Your task to perform on an android device: stop showing notifications on the lock screen Image 0: 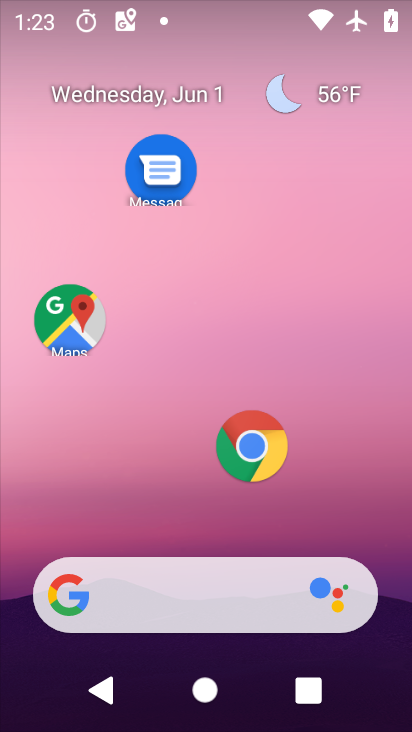
Step 0: drag from (169, 515) to (221, 145)
Your task to perform on an android device: stop showing notifications on the lock screen Image 1: 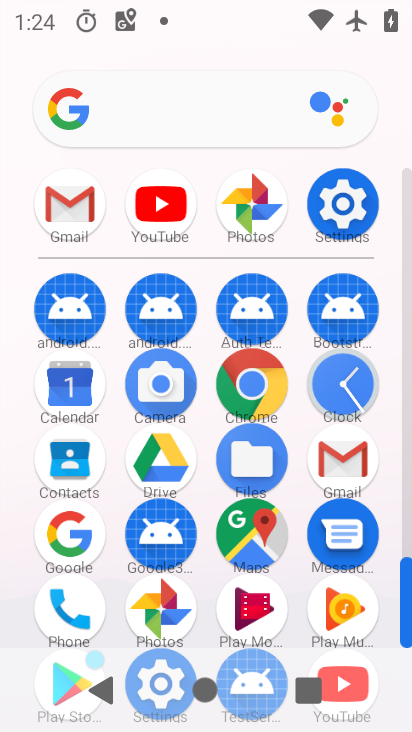
Step 1: click (307, 433)
Your task to perform on an android device: stop showing notifications on the lock screen Image 2: 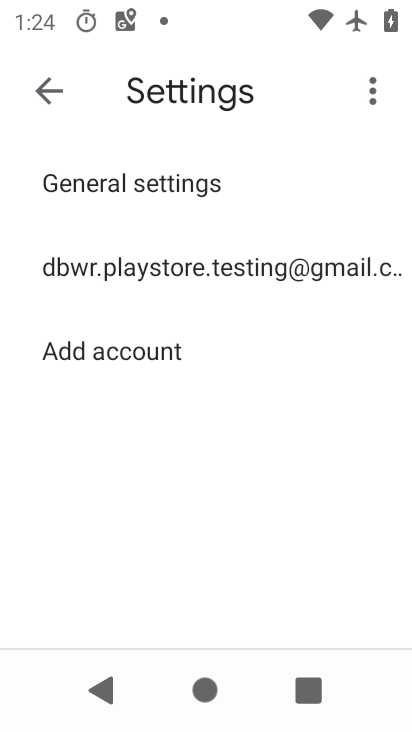
Step 2: drag from (200, 274) to (211, 153)
Your task to perform on an android device: stop showing notifications on the lock screen Image 3: 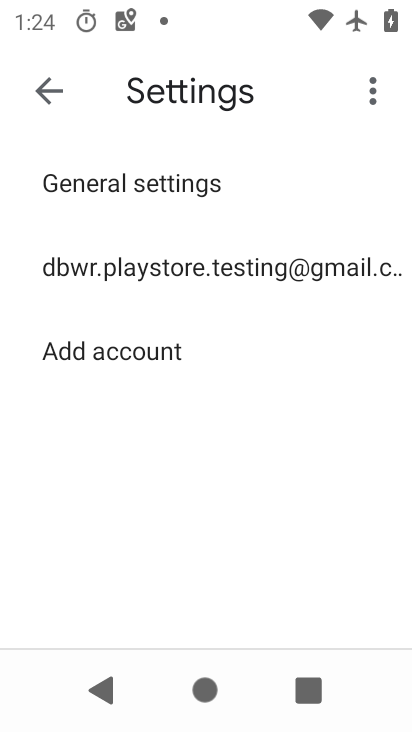
Step 3: press back button
Your task to perform on an android device: stop showing notifications on the lock screen Image 4: 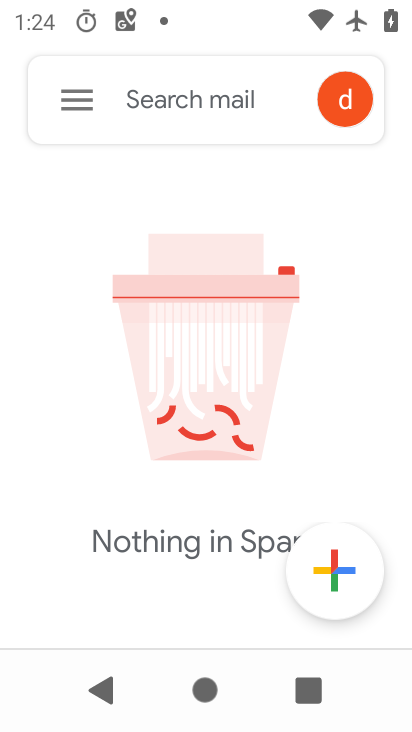
Step 4: press home button
Your task to perform on an android device: stop showing notifications on the lock screen Image 5: 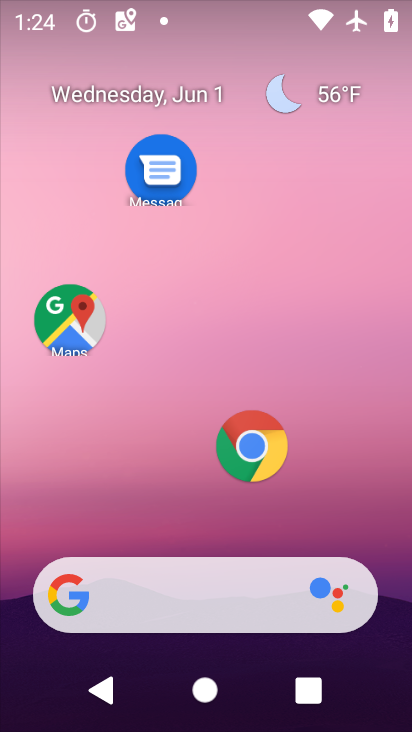
Step 5: drag from (239, 537) to (307, 120)
Your task to perform on an android device: stop showing notifications on the lock screen Image 6: 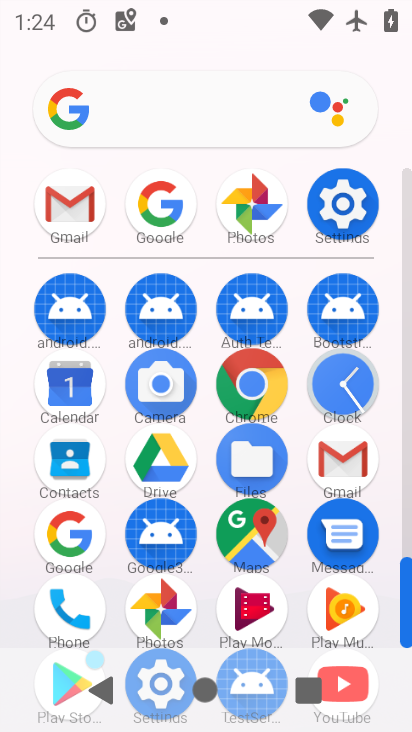
Step 6: drag from (191, 267) to (217, 120)
Your task to perform on an android device: stop showing notifications on the lock screen Image 7: 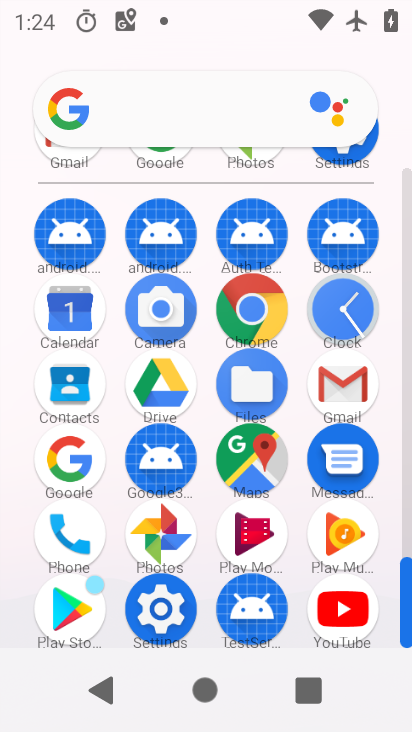
Step 7: click (160, 627)
Your task to perform on an android device: stop showing notifications on the lock screen Image 8: 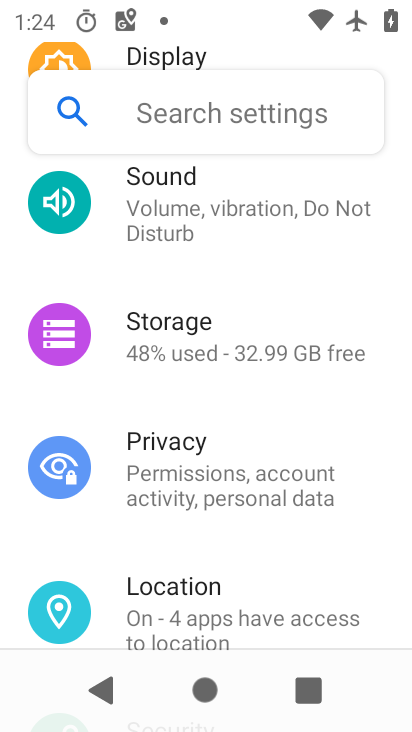
Step 8: drag from (247, 523) to (298, 232)
Your task to perform on an android device: stop showing notifications on the lock screen Image 9: 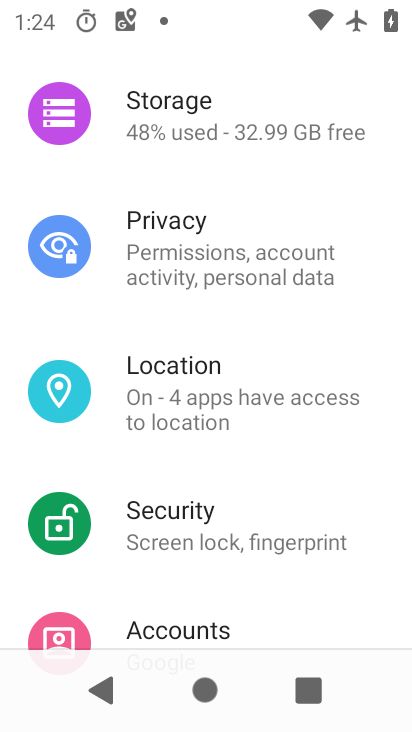
Step 9: drag from (269, 140) to (298, 563)
Your task to perform on an android device: stop showing notifications on the lock screen Image 10: 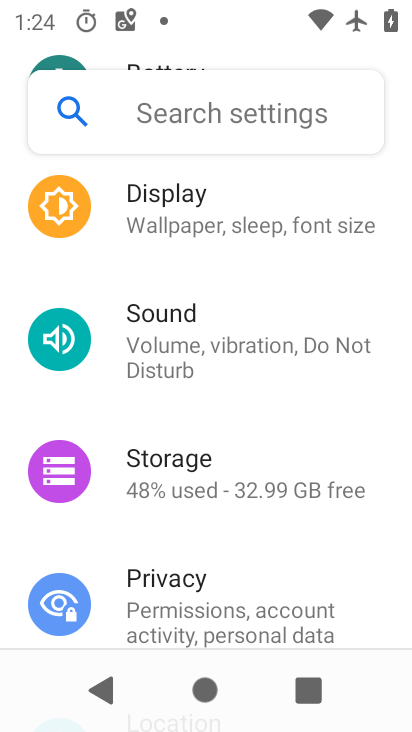
Step 10: drag from (283, 284) to (345, 591)
Your task to perform on an android device: stop showing notifications on the lock screen Image 11: 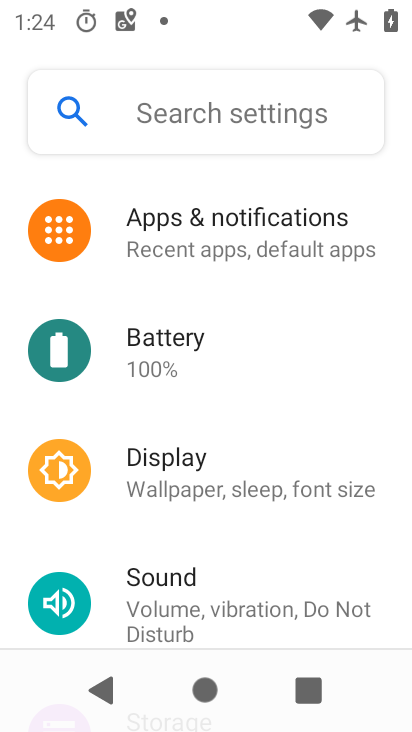
Step 11: click (265, 235)
Your task to perform on an android device: stop showing notifications on the lock screen Image 12: 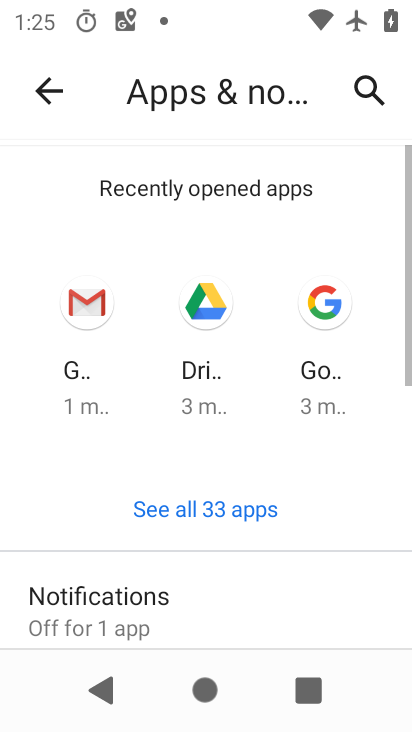
Step 12: drag from (216, 619) to (215, 372)
Your task to perform on an android device: stop showing notifications on the lock screen Image 13: 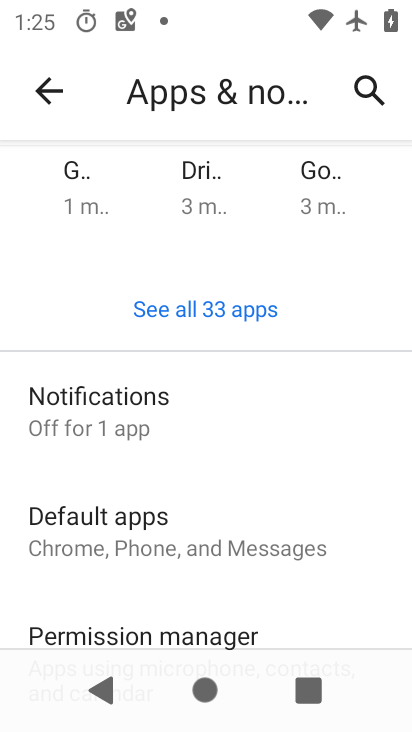
Step 13: click (216, 430)
Your task to perform on an android device: stop showing notifications on the lock screen Image 14: 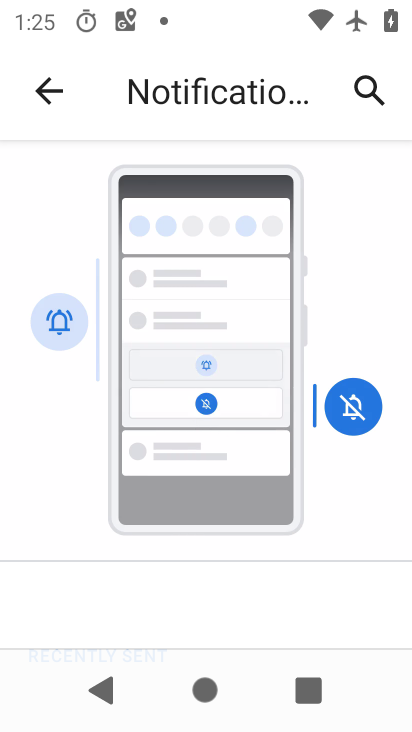
Step 14: drag from (185, 536) to (263, 132)
Your task to perform on an android device: stop showing notifications on the lock screen Image 15: 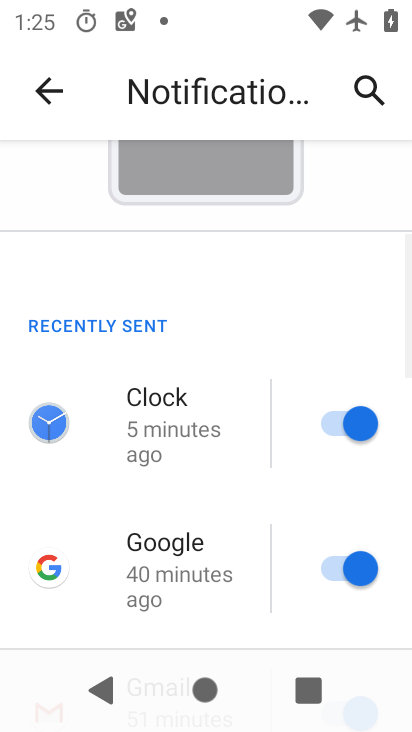
Step 15: drag from (192, 548) to (232, 125)
Your task to perform on an android device: stop showing notifications on the lock screen Image 16: 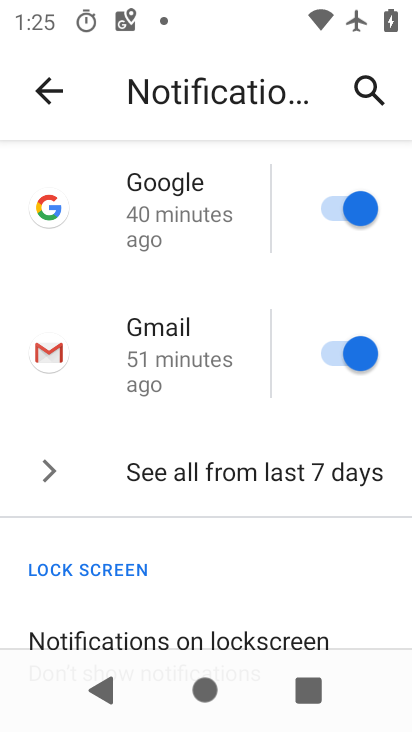
Step 16: drag from (135, 589) to (159, 364)
Your task to perform on an android device: stop showing notifications on the lock screen Image 17: 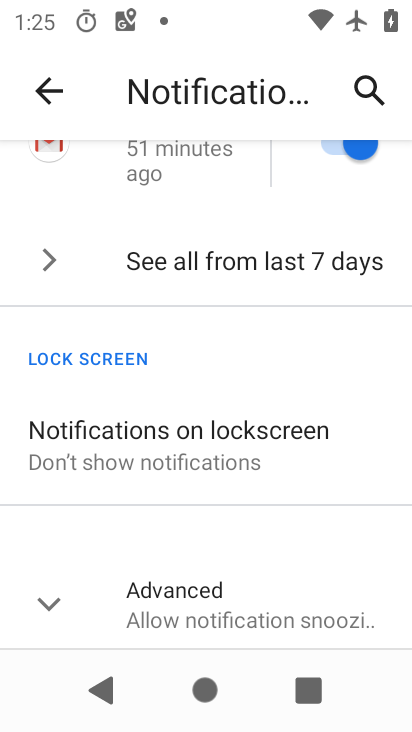
Step 17: click (152, 462)
Your task to perform on an android device: stop showing notifications on the lock screen Image 18: 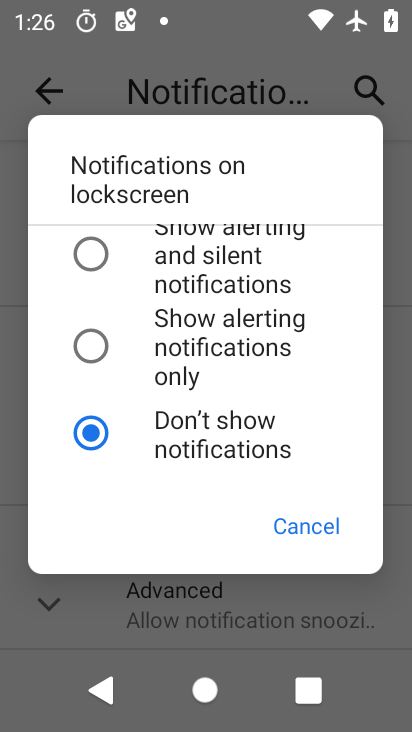
Step 18: task complete